Your task to perform on an android device: change alarm snooze length Image 0: 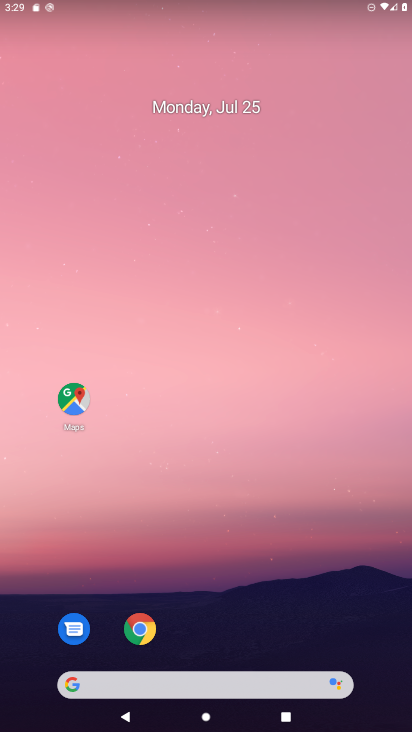
Step 0: drag from (250, 630) to (294, 225)
Your task to perform on an android device: change alarm snooze length Image 1: 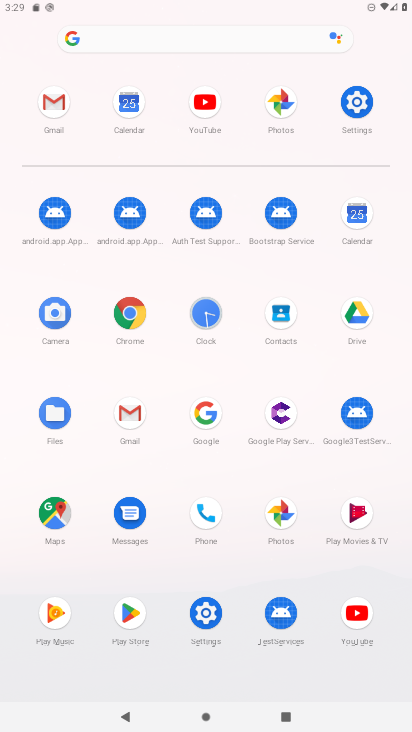
Step 1: click (206, 319)
Your task to perform on an android device: change alarm snooze length Image 2: 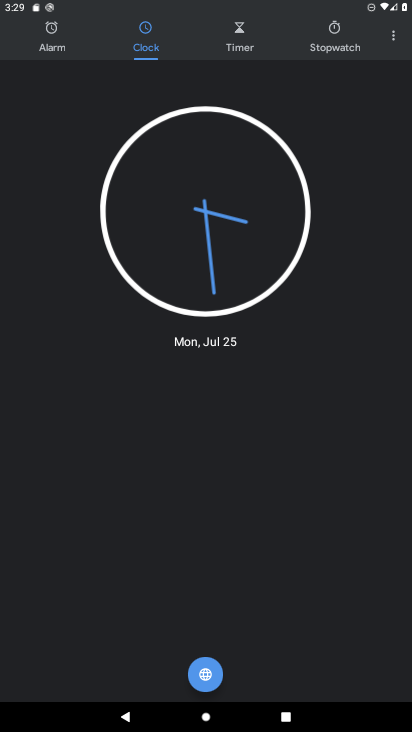
Step 2: click (388, 34)
Your task to perform on an android device: change alarm snooze length Image 3: 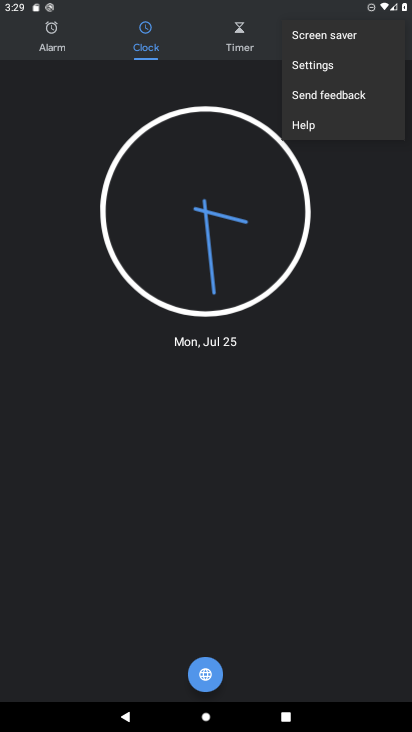
Step 3: click (315, 67)
Your task to perform on an android device: change alarm snooze length Image 4: 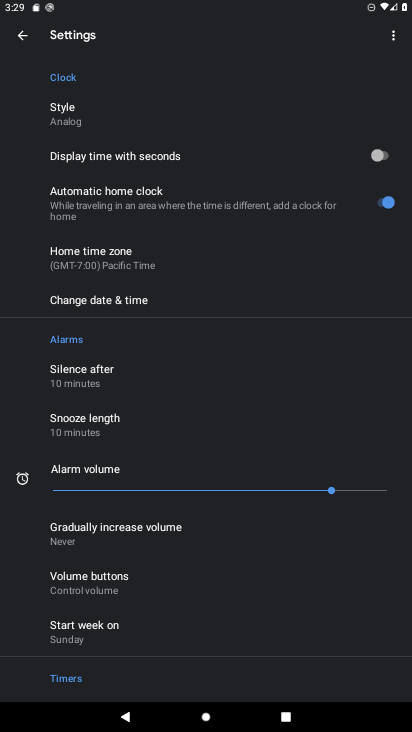
Step 4: click (87, 421)
Your task to perform on an android device: change alarm snooze length Image 5: 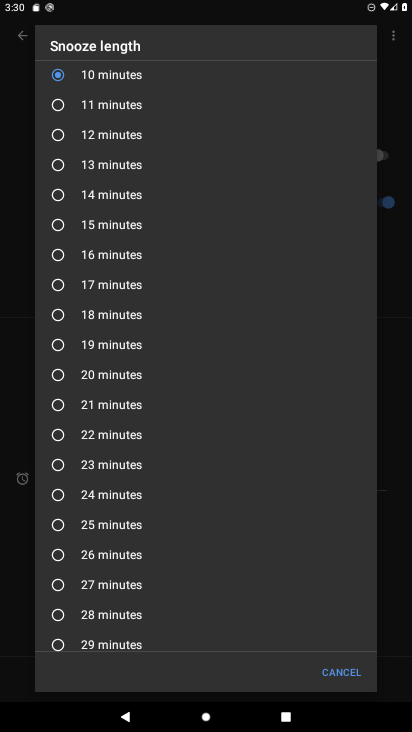
Step 5: click (100, 241)
Your task to perform on an android device: change alarm snooze length Image 6: 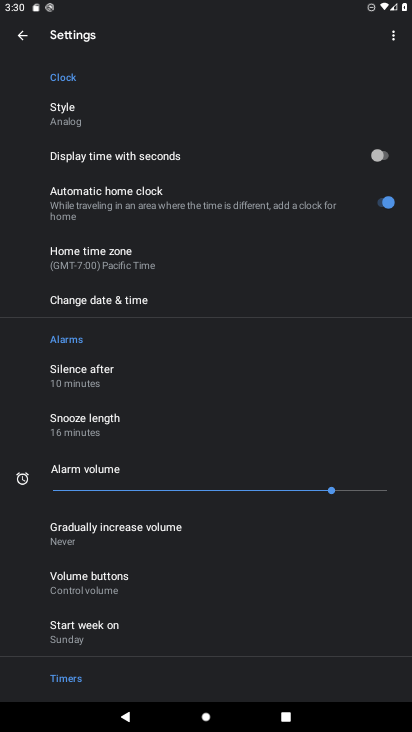
Step 6: task complete